Your task to perform on an android device: Search for flights from Tokyo to Mexico city Image 0: 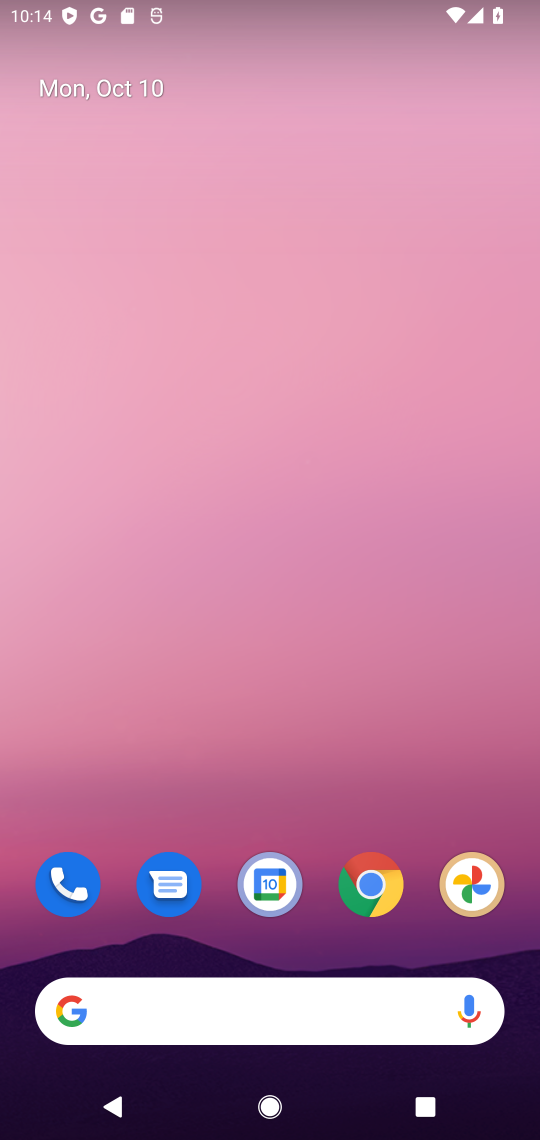
Step 0: click (366, 888)
Your task to perform on an android device: Search for flights from Tokyo to Mexico city Image 1: 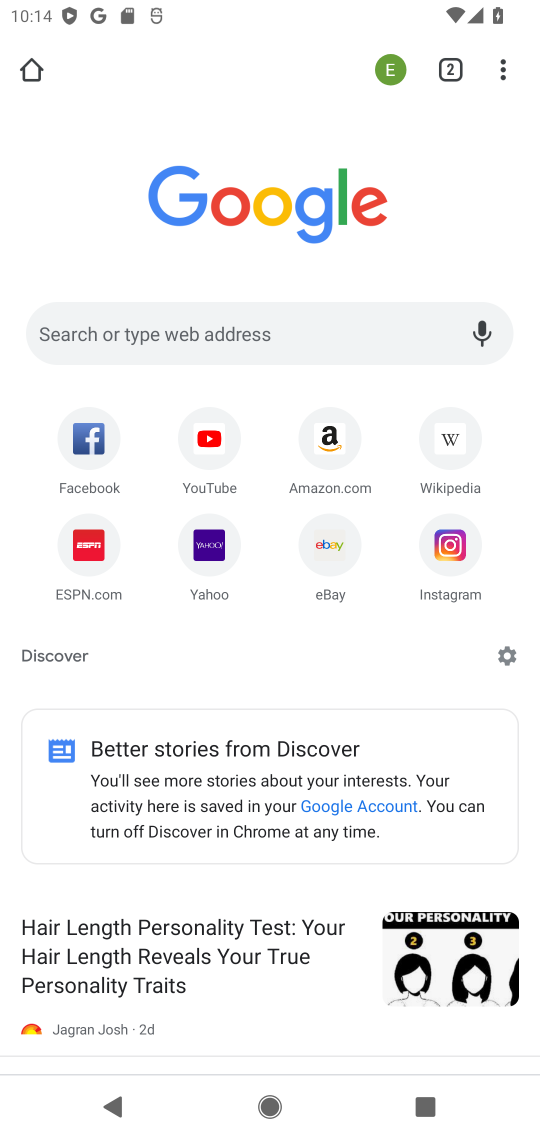
Step 1: click (292, 326)
Your task to perform on an android device: Search for flights from Tokyo to Mexico city Image 2: 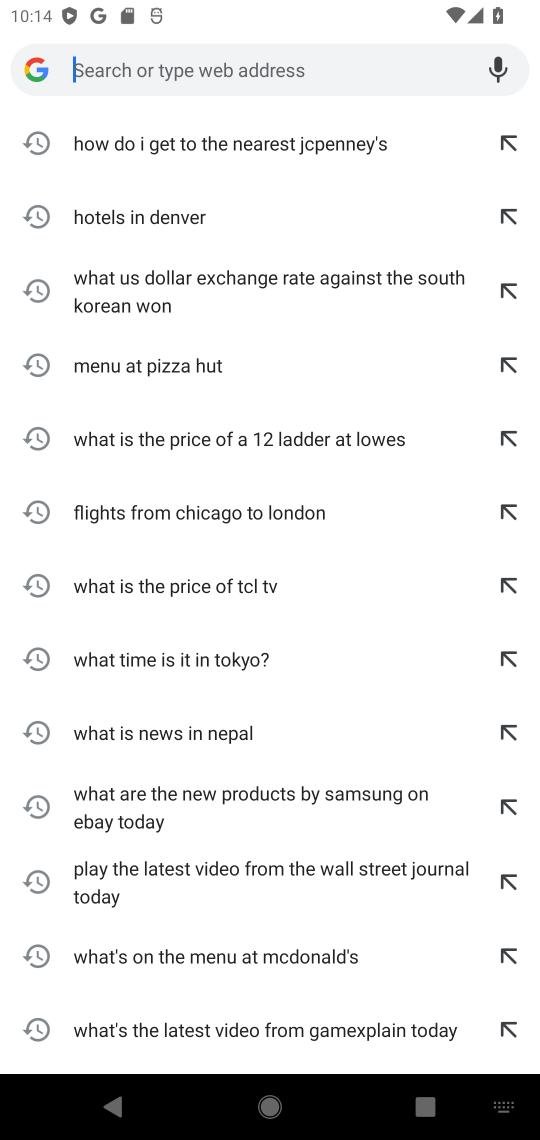
Step 2: type "Search for flights from Tokyo to Mexico city"
Your task to perform on an android device: Search for flights from Tokyo to Mexico city Image 3: 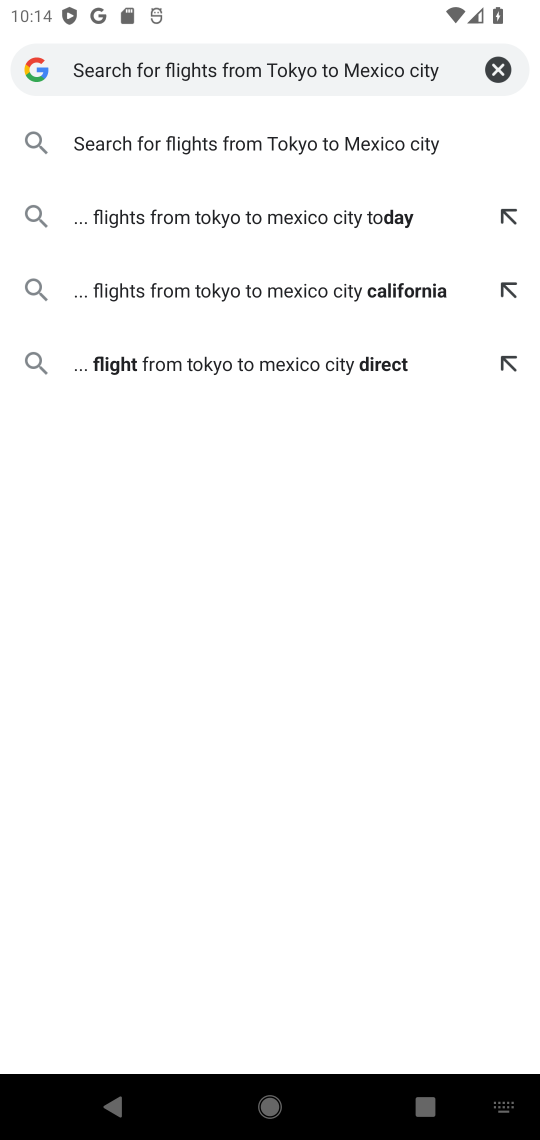
Step 3: click (383, 146)
Your task to perform on an android device: Search for flights from Tokyo to Mexico city Image 4: 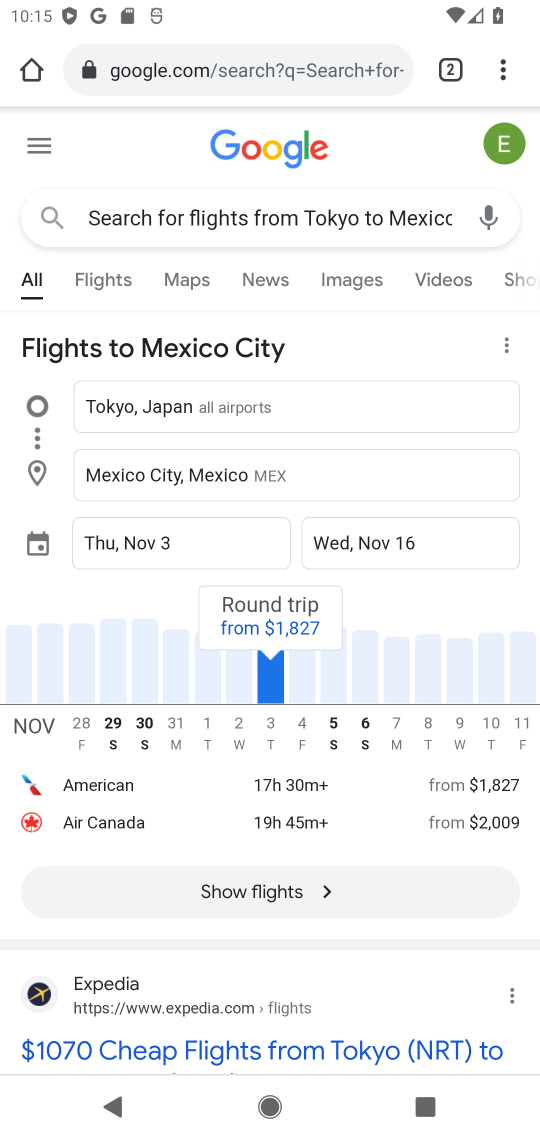
Step 4: task complete